Your task to perform on an android device: empty trash in google photos Image 0: 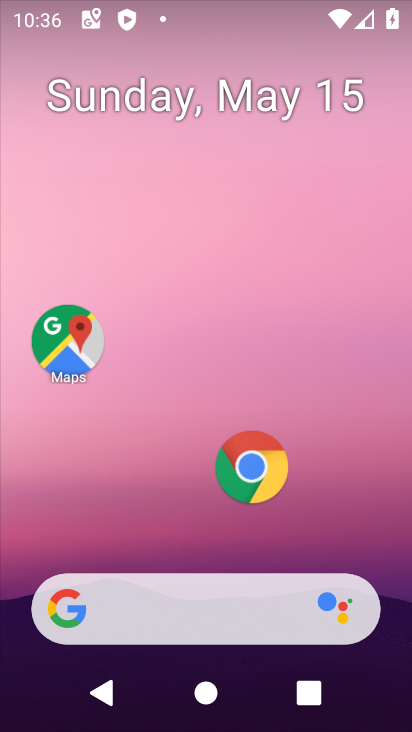
Step 0: drag from (181, 508) to (238, 52)
Your task to perform on an android device: empty trash in google photos Image 1: 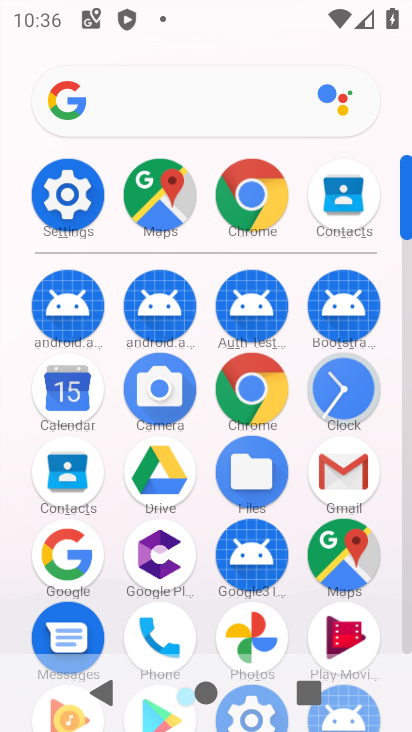
Step 1: click (251, 659)
Your task to perform on an android device: empty trash in google photos Image 2: 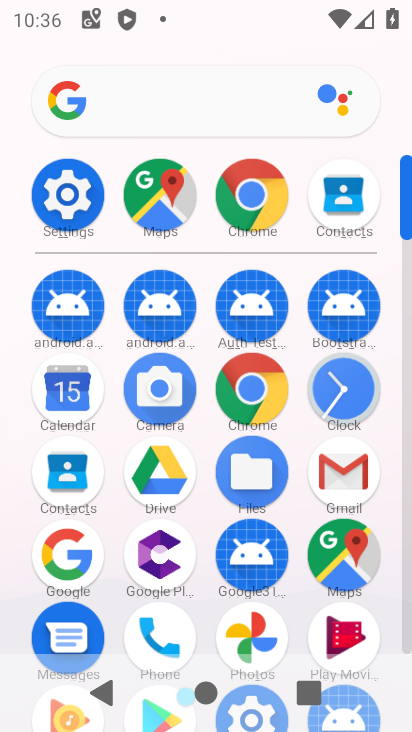
Step 2: click (250, 639)
Your task to perform on an android device: empty trash in google photos Image 3: 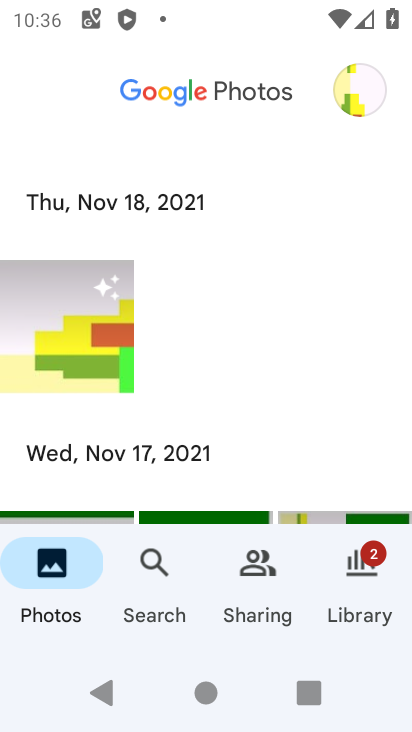
Step 3: click (336, 556)
Your task to perform on an android device: empty trash in google photos Image 4: 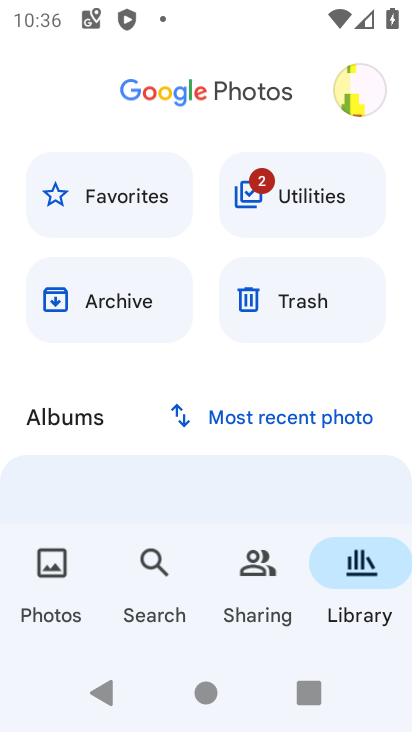
Step 4: click (301, 339)
Your task to perform on an android device: empty trash in google photos Image 5: 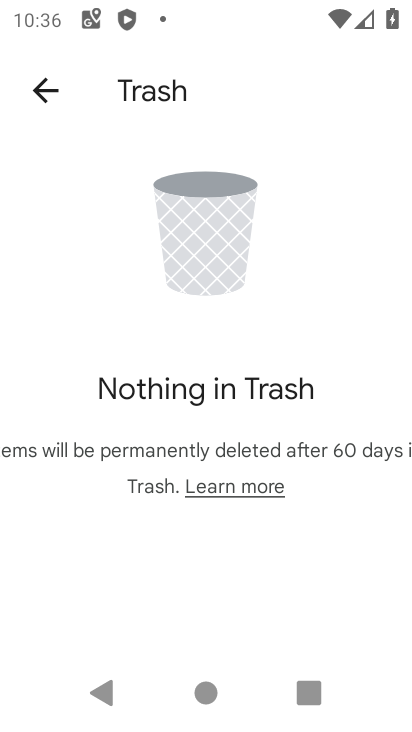
Step 5: task complete